Your task to perform on an android device: turn on sleep mode Image 0: 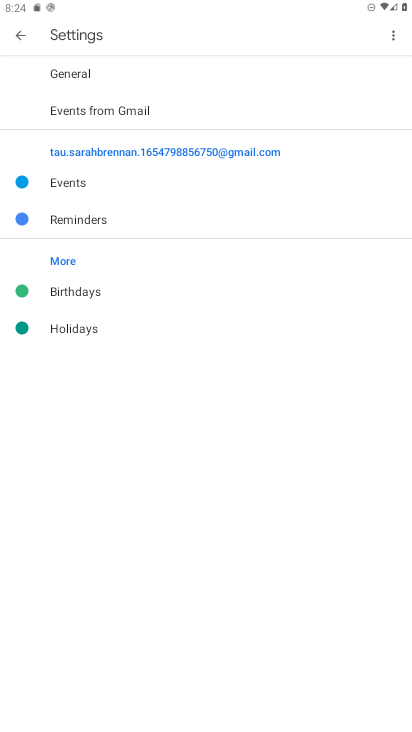
Step 0: press home button
Your task to perform on an android device: turn on sleep mode Image 1: 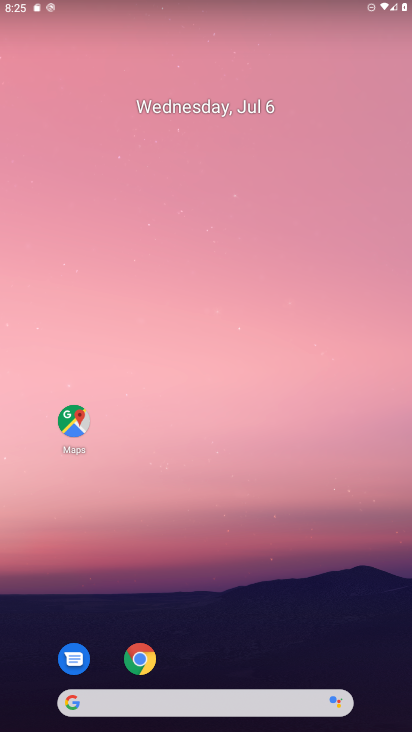
Step 1: drag from (268, 622) to (266, 220)
Your task to perform on an android device: turn on sleep mode Image 2: 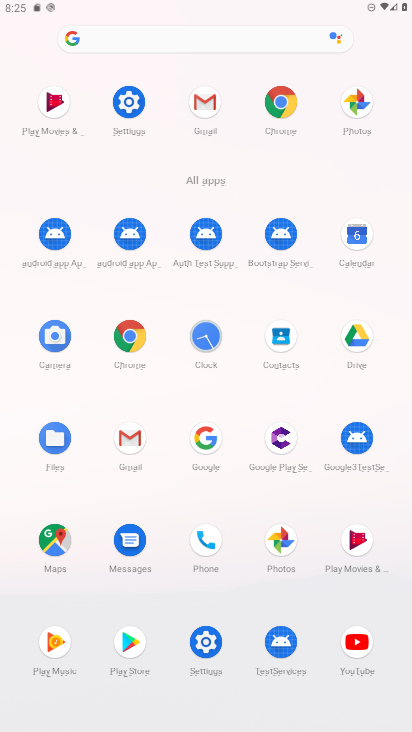
Step 2: click (122, 122)
Your task to perform on an android device: turn on sleep mode Image 3: 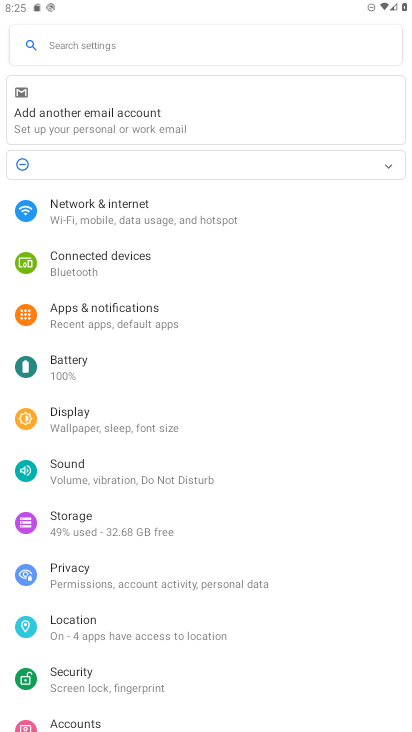
Step 3: click (112, 423)
Your task to perform on an android device: turn on sleep mode Image 4: 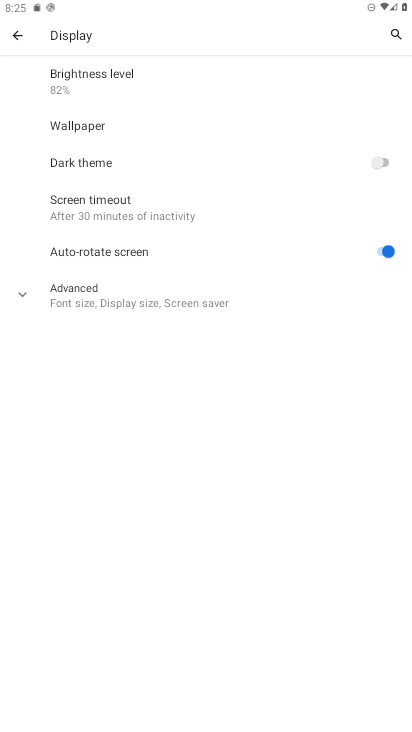
Step 4: click (125, 311)
Your task to perform on an android device: turn on sleep mode Image 5: 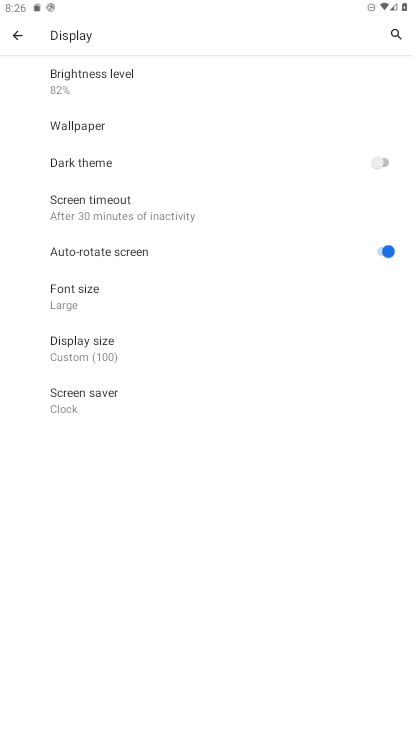
Step 5: task complete